Your task to perform on an android device: Open settings Image 0: 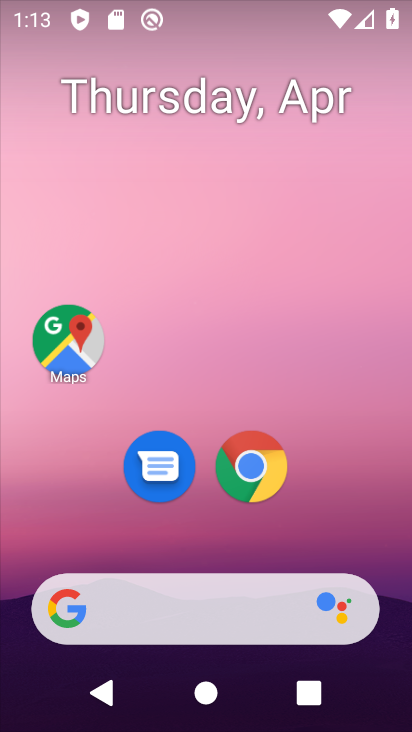
Step 0: drag from (322, 467) to (218, 17)
Your task to perform on an android device: Open settings Image 1: 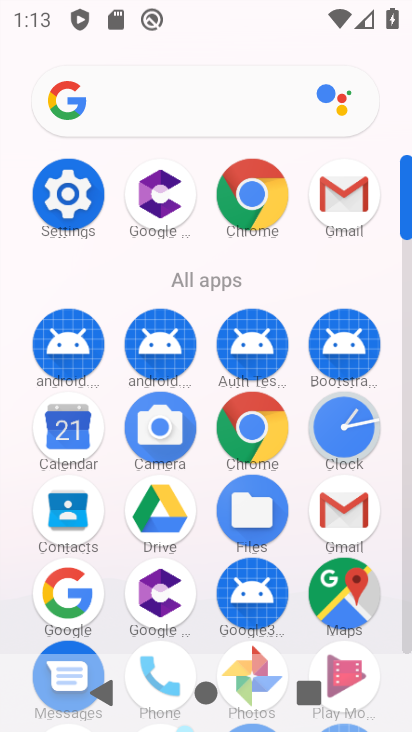
Step 1: click (62, 190)
Your task to perform on an android device: Open settings Image 2: 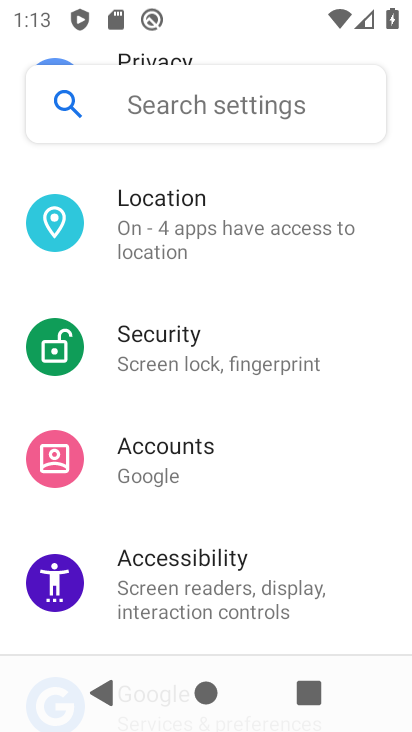
Step 2: task complete